Your task to perform on an android device: move a message to another label in the gmail app Image 0: 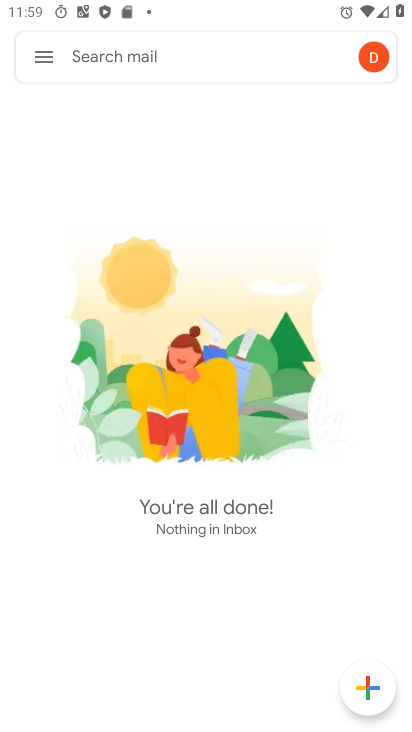
Step 0: press home button
Your task to perform on an android device: move a message to another label in the gmail app Image 1: 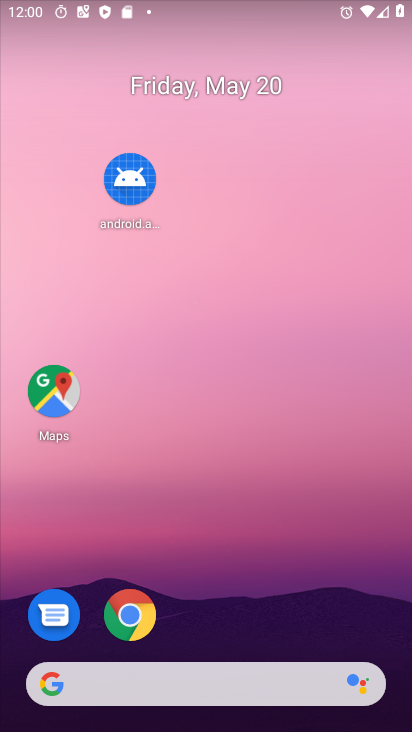
Step 1: drag from (296, 611) to (270, 1)
Your task to perform on an android device: move a message to another label in the gmail app Image 2: 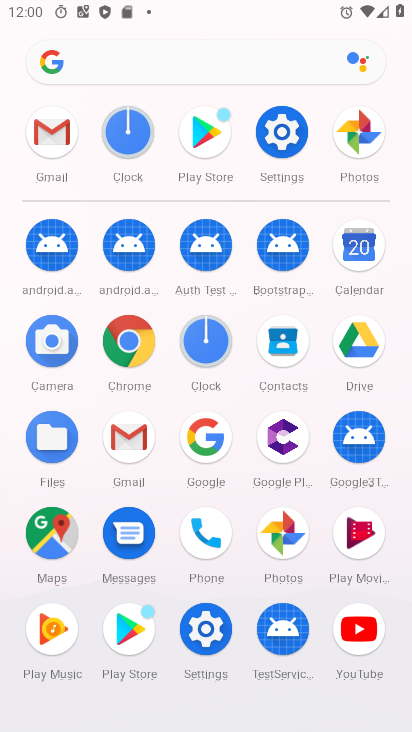
Step 2: click (133, 433)
Your task to perform on an android device: move a message to another label in the gmail app Image 3: 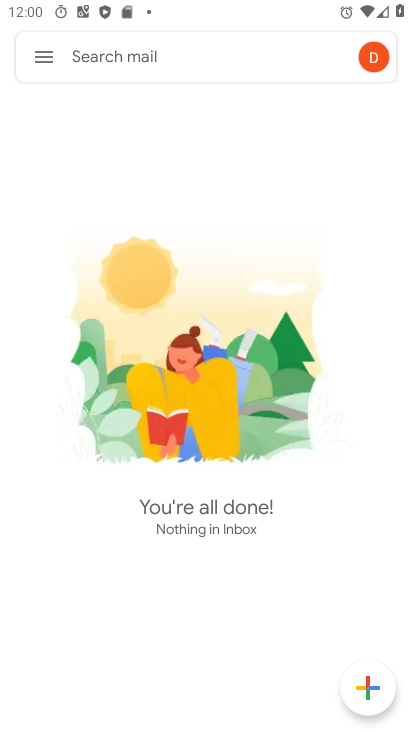
Step 3: click (50, 68)
Your task to perform on an android device: move a message to another label in the gmail app Image 4: 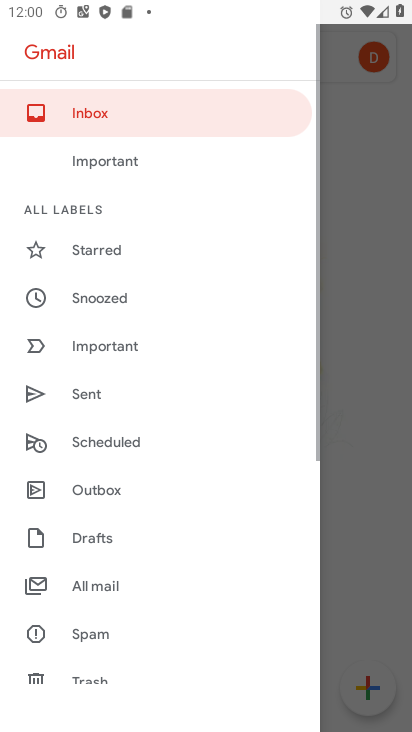
Step 4: task complete